Your task to perform on an android device: How do I get to the nearest Verizon Store? Image 0: 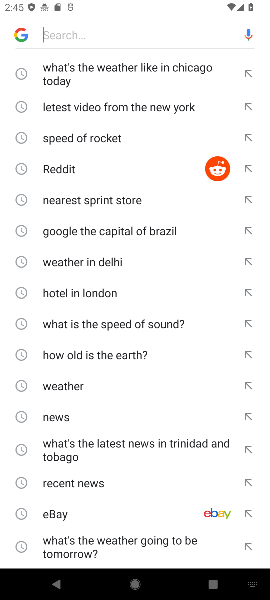
Step 0: press home button
Your task to perform on an android device: How do I get to the nearest Verizon Store? Image 1: 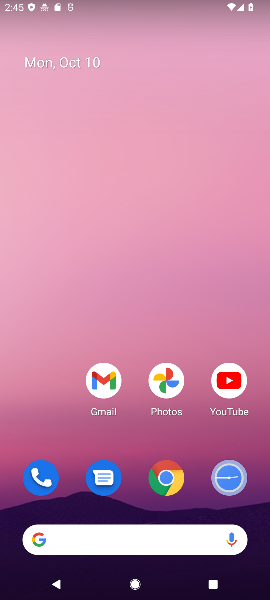
Step 1: click (164, 479)
Your task to perform on an android device: How do I get to the nearest Verizon Store? Image 2: 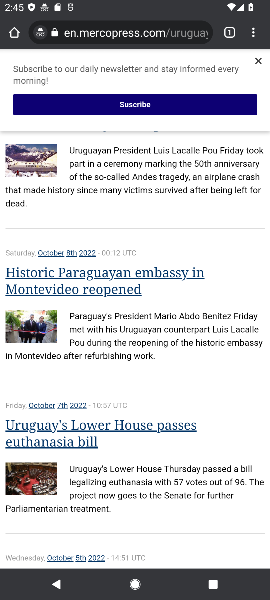
Step 2: click (129, 30)
Your task to perform on an android device: How do I get to the nearest Verizon Store? Image 3: 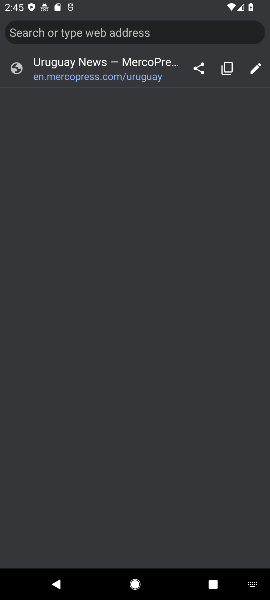
Step 3: type "How do I get to the nearest Verizon Store?"
Your task to perform on an android device: How do I get to the nearest Verizon Store? Image 4: 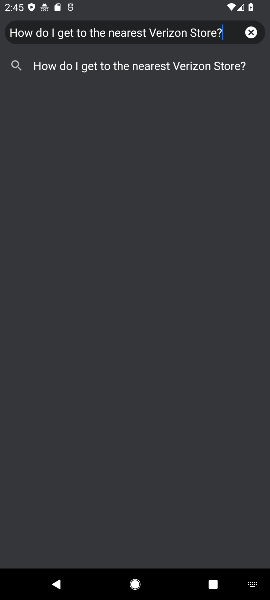
Step 4: click (162, 76)
Your task to perform on an android device: How do I get to the nearest Verizon Store? Image 5: 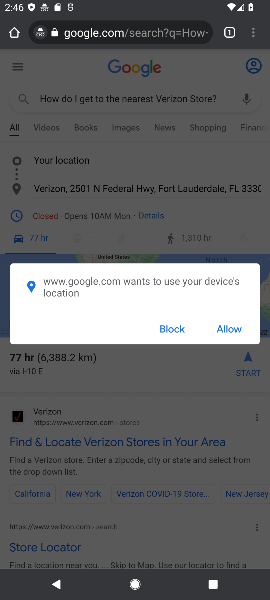
Step 5: click (223, 326)
Your task to perform on an android device: How do I get to the nearest Verizon Store? Image 6: 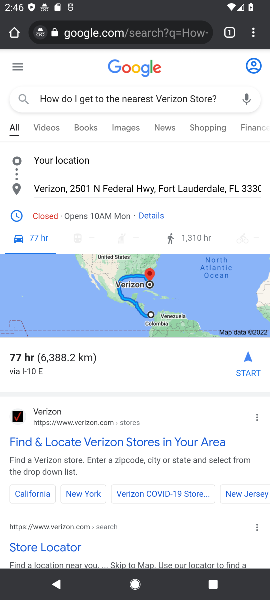
Step 6: task complete